Your task to perform on an android device: turn on bluetooth scan Image 0: 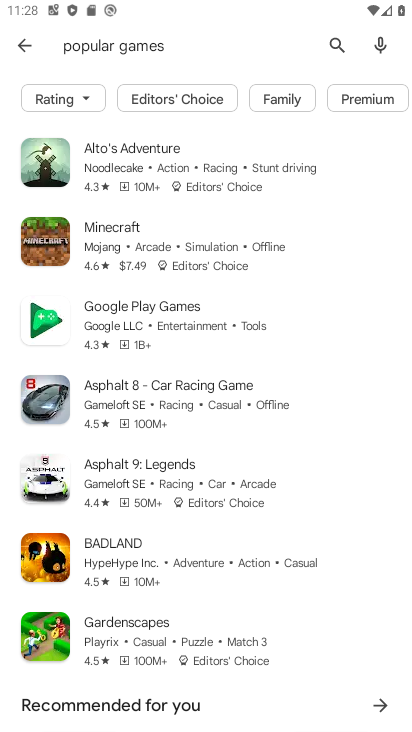
Step 0: press home button
Your task to perform on an android device: turn on bluetooth scan Image 1: 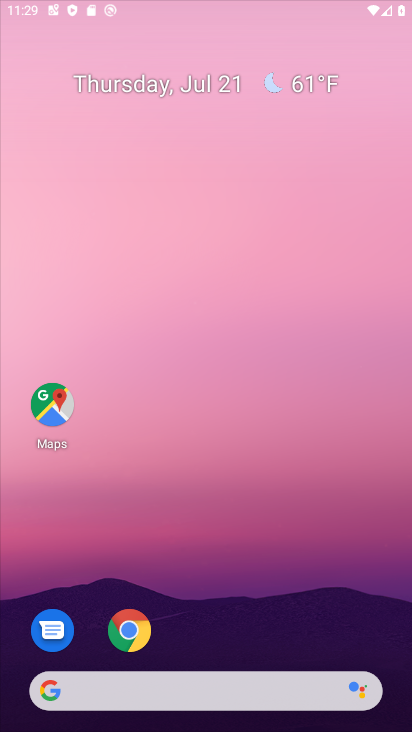
Step 1: drag from (180, 677) to (180, 193)
Your task to perform on an android device: turn on bluetooth scan Image 2: 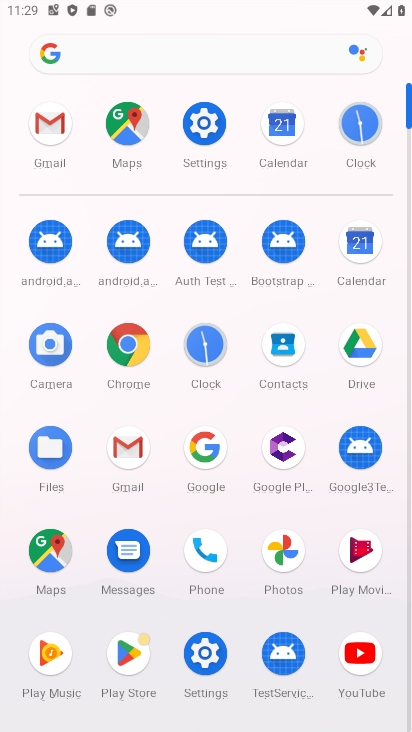
Step 2: click (203, 650)
Your task to perform on an android device: turn on bluetooth scan Image 3: 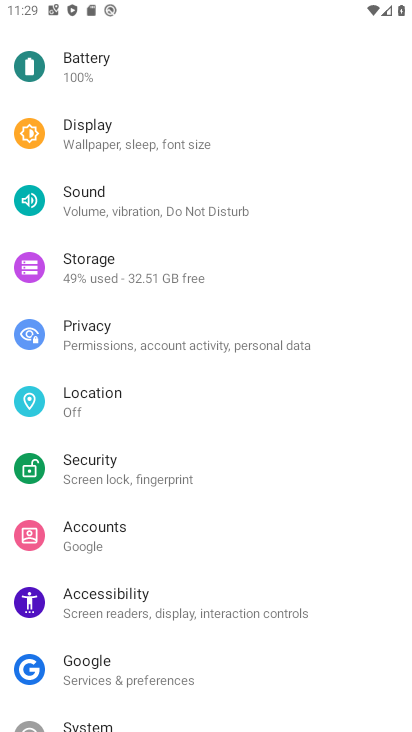
Step 3: click (81, 401)
Your task to perform on an android device: turn on bluetooth scan Image 4: 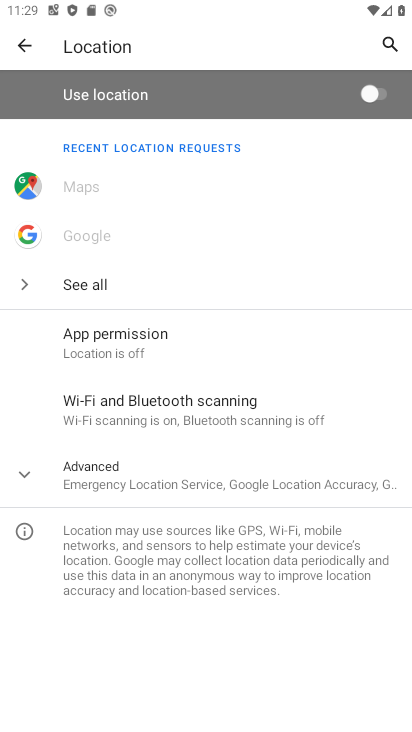
Step 4: click (127, 404)
Your task to perform on an android device: turn on bluetooth scan Image 5: 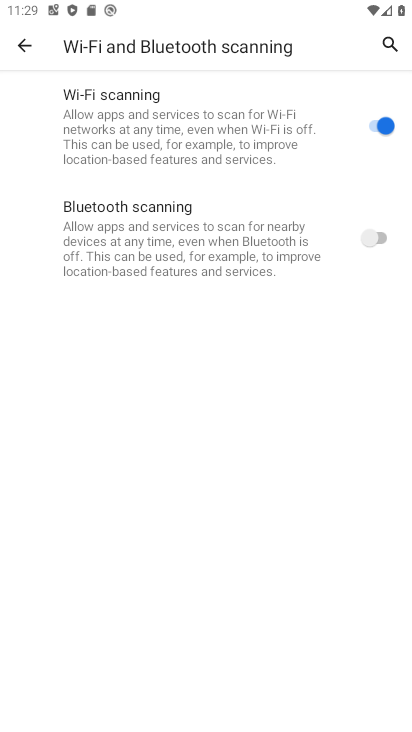
Step 5: click (377, 238)
Your task to perform on an android device: turn on bluetooth scan Image 6: 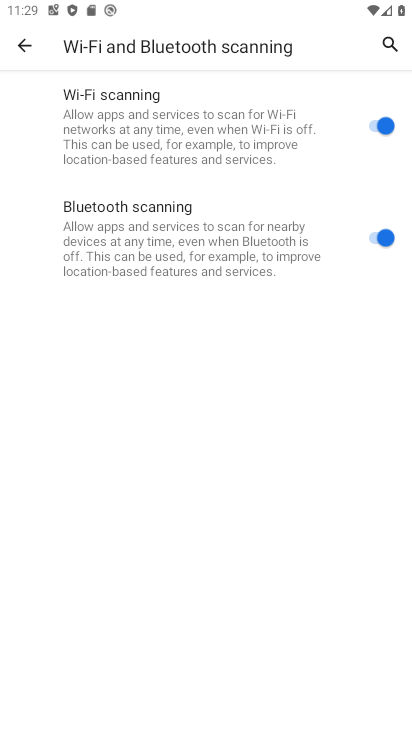
Step 6: task complete